Your task to perform on an android device: turn on translation in the chrome app Image 0: 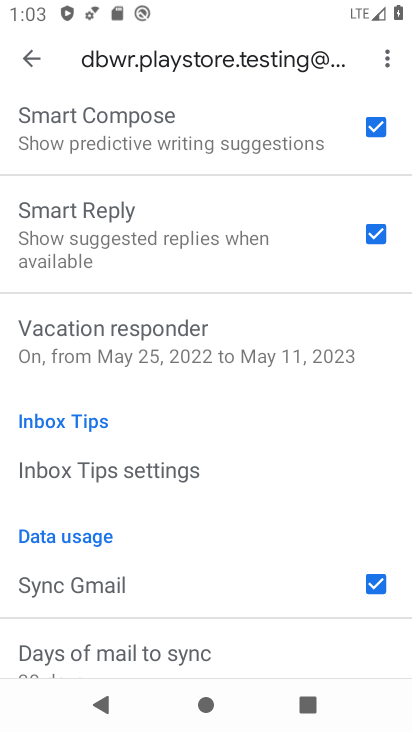
Step 0: press home button
Your task to perform on an android device: turn on translation in the chrome app Image 1: 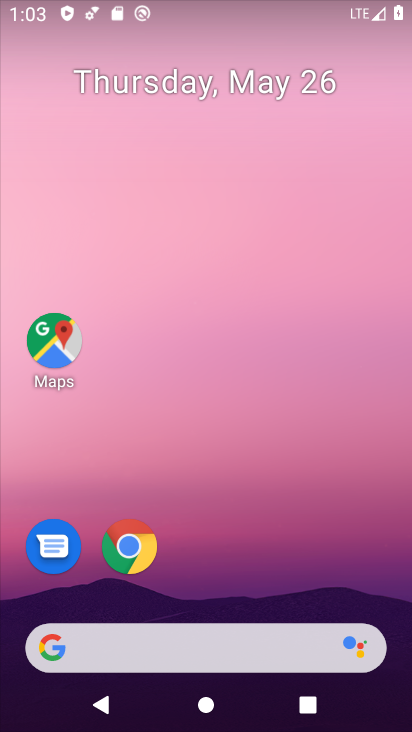
Step 1: click (130, 555)
Your task to perform on an android device: turn on translation in the chrome app Image 2: 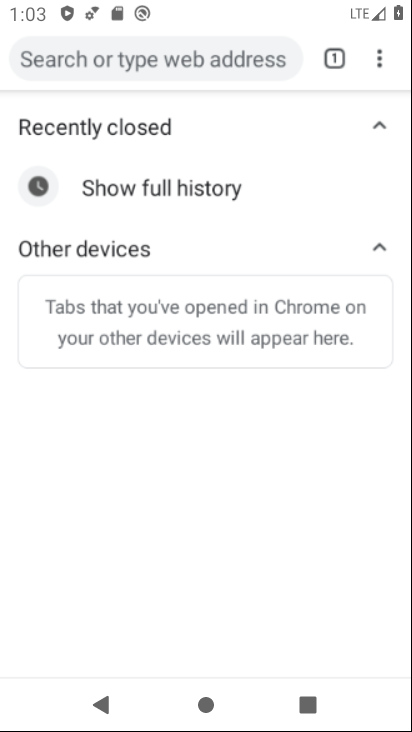
Step 2: click (367, 40)
Your task to perform on an android device: turn on translation in the chrome app Image 3: 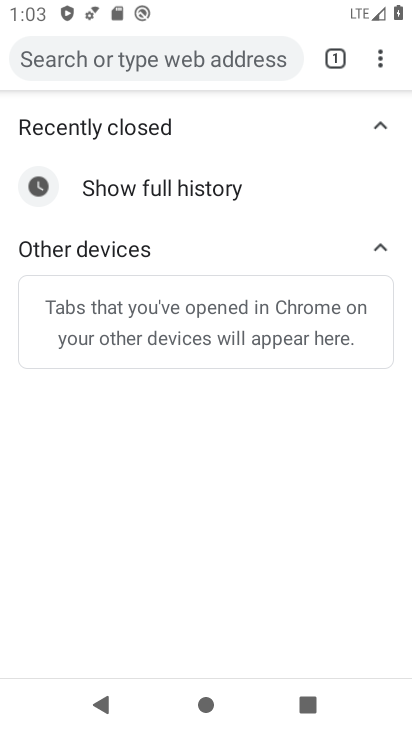
Step 3: click (375, 47)
Your task to perform on an android device: turn on translation in the chrome app Image 4: 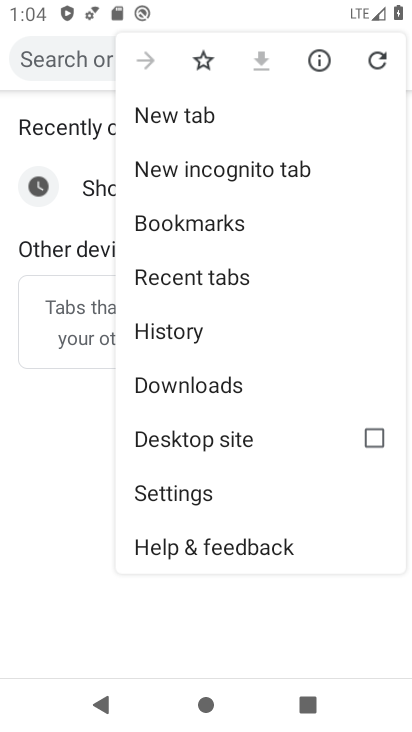
Step 4: click (216, 501)
Your task to perform on an android device: turn on translation in the chrome app Image 5: 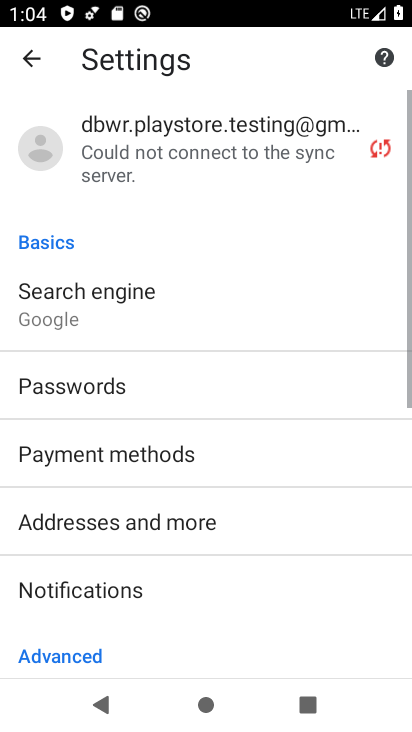
Step 5: drag from (158, 617) to (115, 110)
Your task to perform on an android device: turn on translation in the chrome app Image 6: 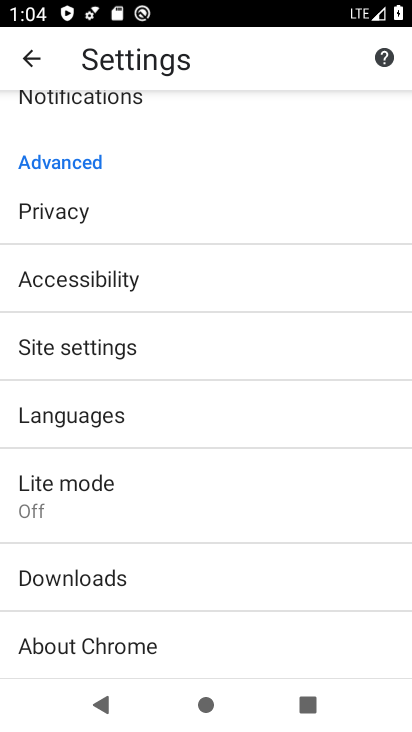
Step 6: click (123, 432)
Your task to perform on an android device: turn on translation in the chrome app Image 7: 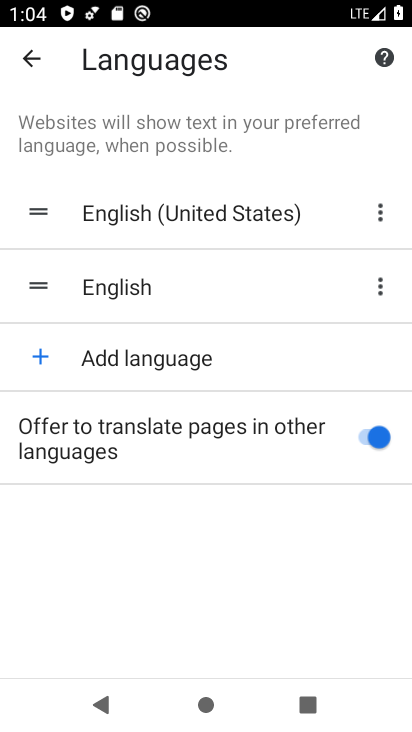
Step 7: task complete